Your task to perform on an android device: empty trash in google photos Image 0: 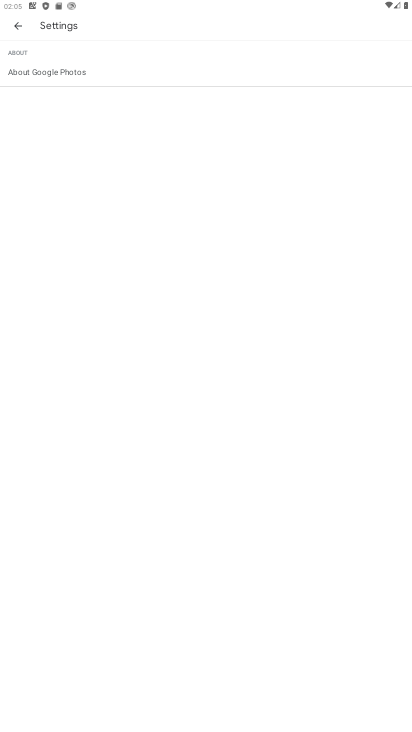
Step 0: press home button
Your task to perform on an android device: empty trash in google photos Image 1: 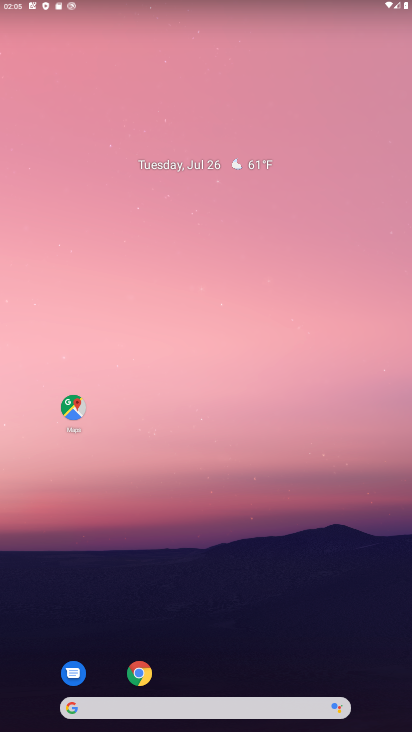
Step 1: drag from (230, 718) to (230, 3)
Your task to perform on an android device: empty trash in google photos Image 2: 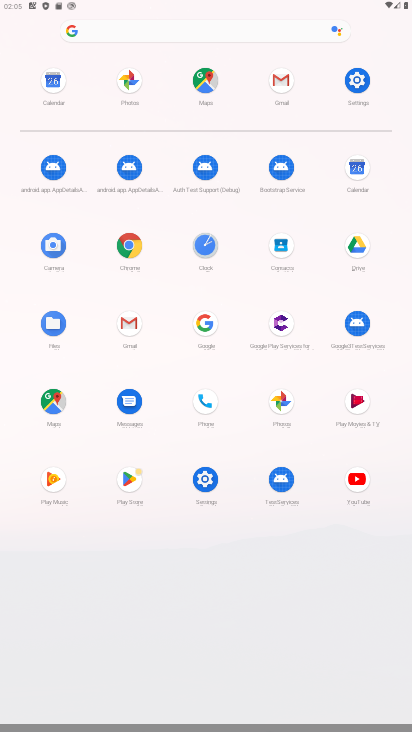
Step 2: click (297, 399)
Your task to perform on an android device: empty trash in google photos Image 3: 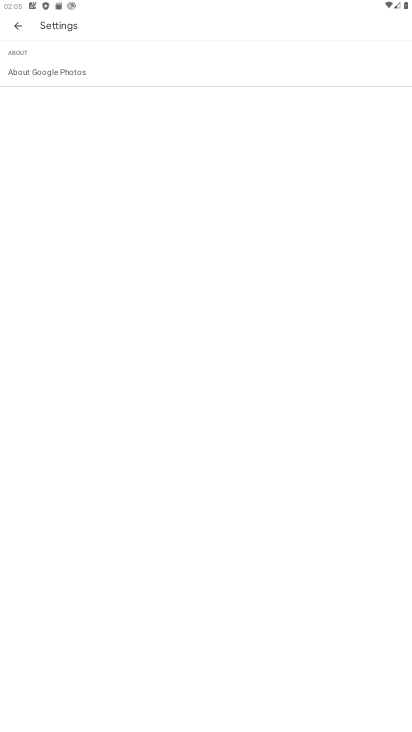
Step 3: click (19, 20)
Your task to perform on an android device: empty trash in google photos Image 4: 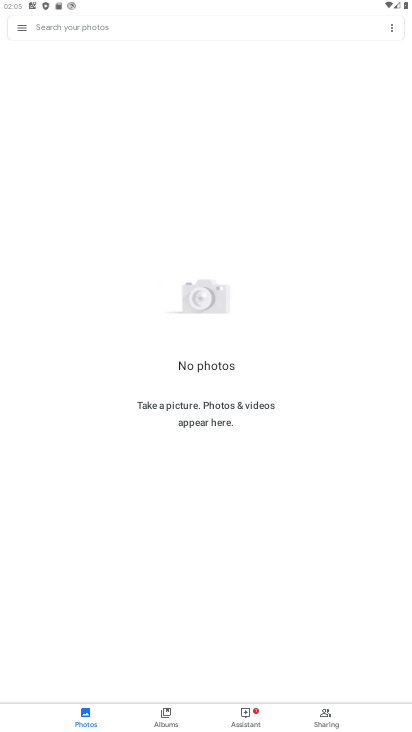
Step 4: click (18, 25)
Your task to perform on an android device: empty trash in google photos Image 5: 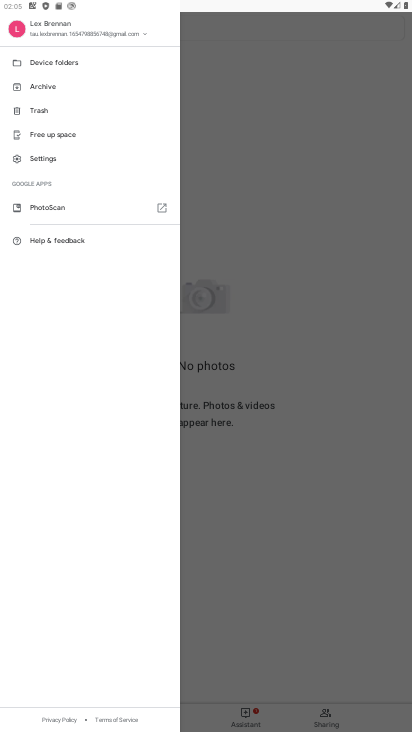
Step 5: click (36, 111)
Your task to perform on an android device: empty trash in google photos Image 6: 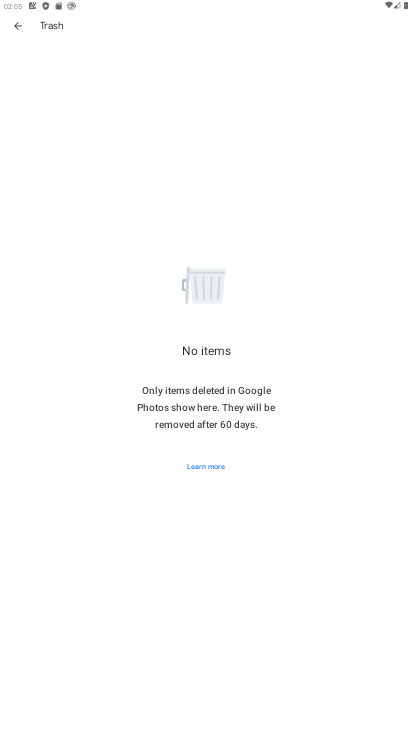
Step 6: task complete